Your task to perform on an android device: add a contact in the contacts app Image 0: 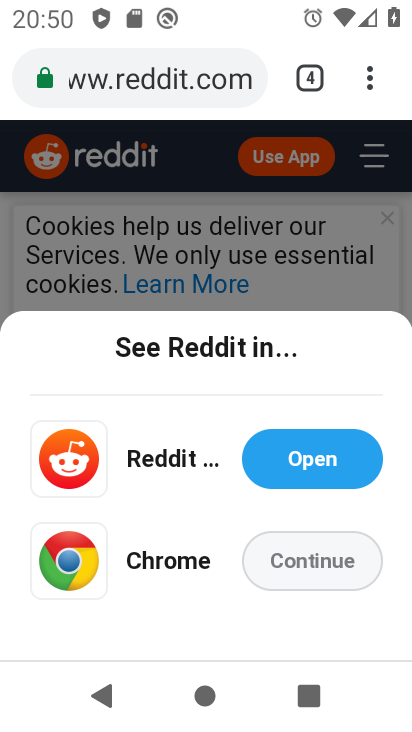
Step 0: press home button
Your task to perform on an android device: add a contact in the contacts app Image 1: 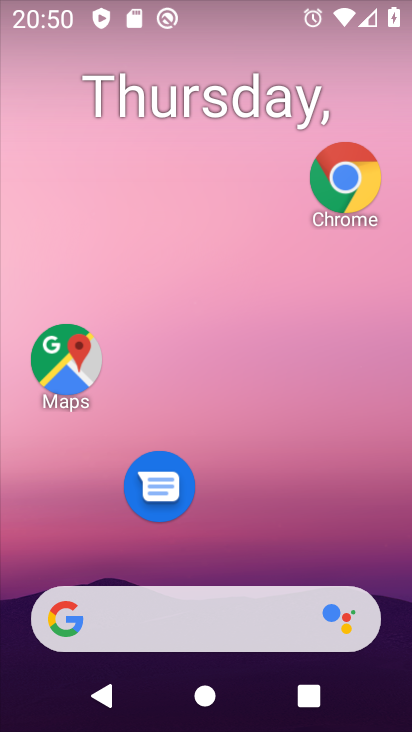
Step 1: drag from (215, 563) to (258, 16)
Your task to perform on an android device: add a contact in the contacts app Image 2: 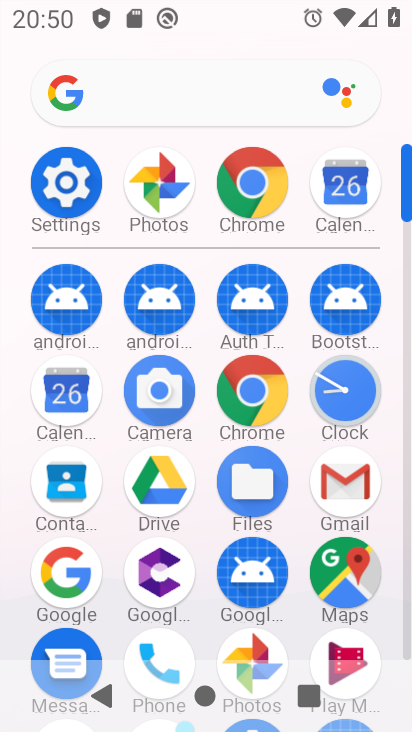
Step 2: click (171, 640)
Your task to perform on an android device: add a contact in the contacts app Image 3: 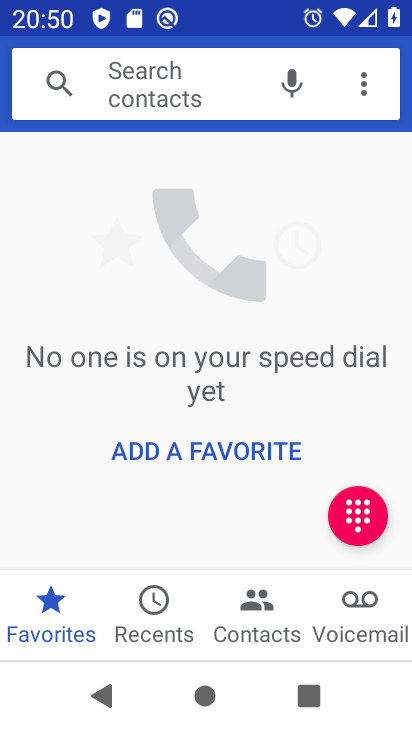
Step 3: click (274, 627)
Your task to perform on an android device: add a contact in the contacts app Image 4: 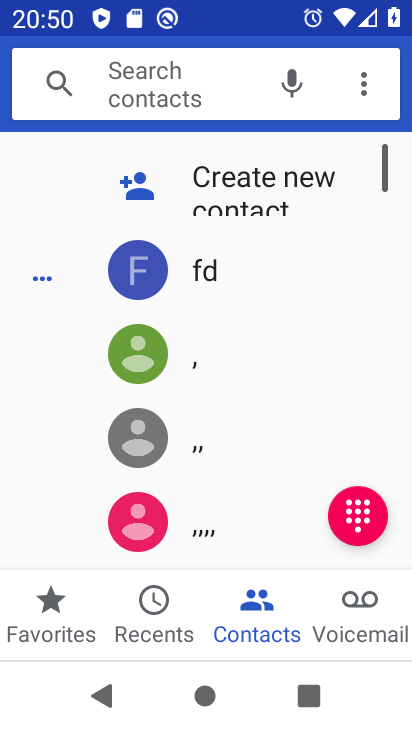
Step 4: click (232, 179)
Your task to perform on an android device: add a contact in the contacts app Image 5: 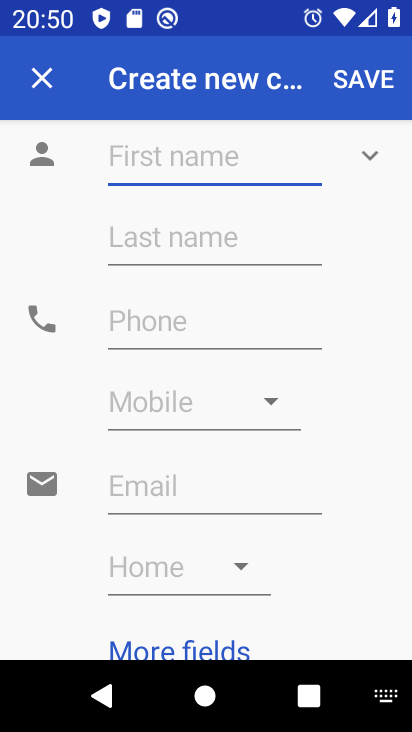
Step 5: type "vvc"
Your task to perform on an android device: add a contact in the contacts app Image 6: 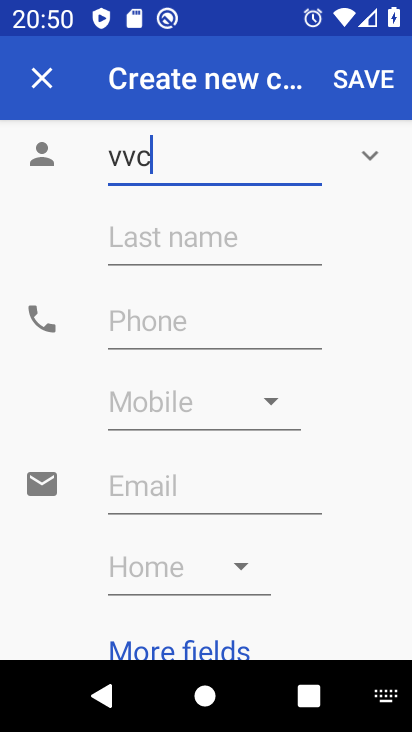
Step 6: type ""
Your task to perform on an android device: add a contact in the contacts app Image 7: 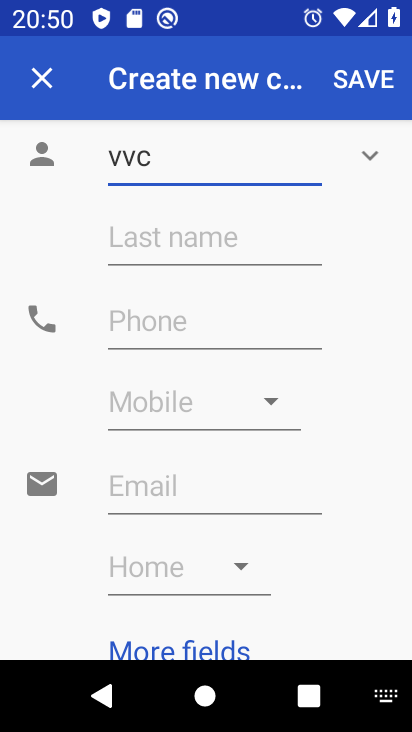
Step 7: click (150, 320)
Your task to perform on an android device: add a contact in the contacts app Image 8: 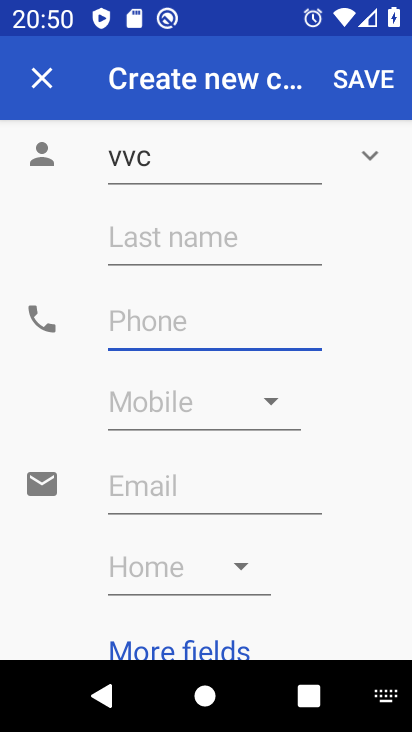
Step 8: type "543"
Your task to perform on an android device: add a contact in the contacts app Image 9: 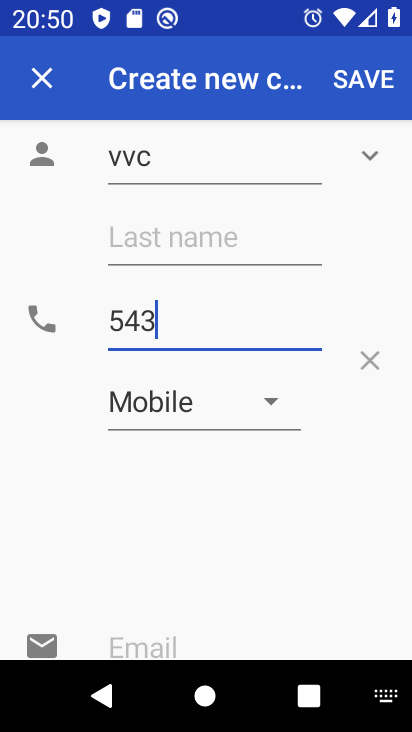
Step 9: type ""
Your task to perform on an android device: add a contact in the contacts app Image 10: 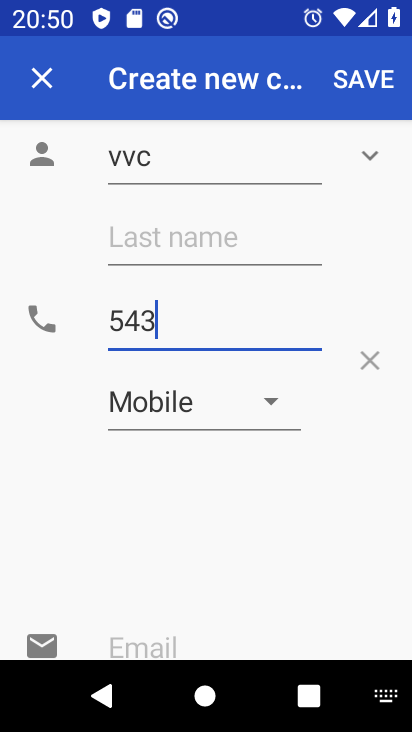
Step 10: click (377, 77)
Your task to perform on an android device: add a contact in the contacts app Image 11: 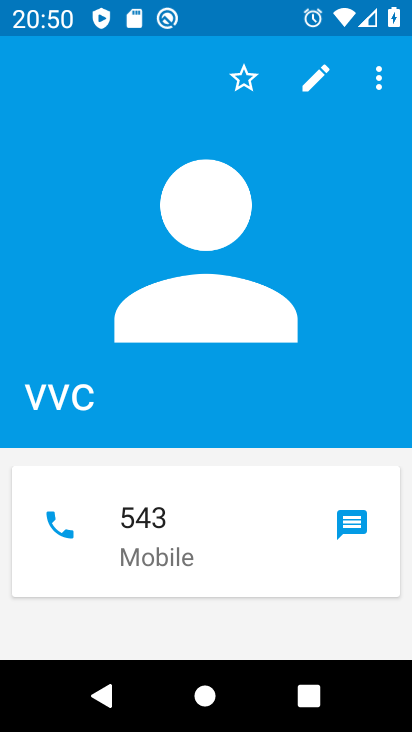
Step 11: task complete